Your task to perform on an android device: Toggle the flashlight Image 0: 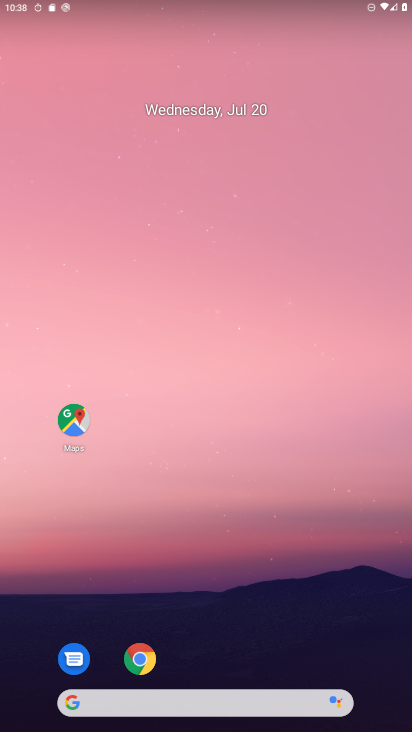
Step 0: drag from (262, 617) to (210, 108)
Your task to perform on an android device: Toggle the flashlight Image 1: 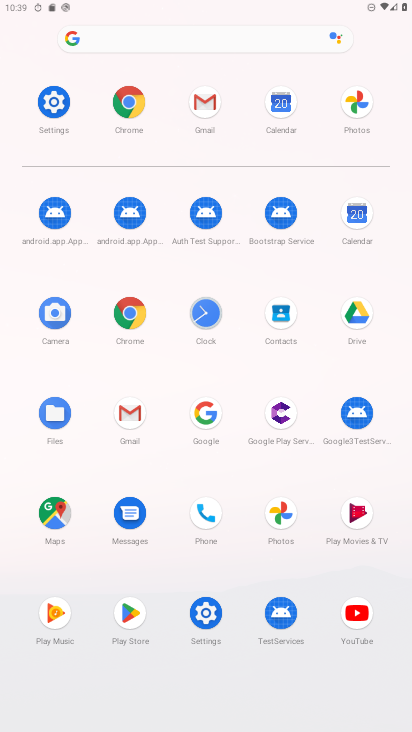
Step 1: click (53, 100)
Your task to perform on an android device: Toggle the flashlight Image 2: 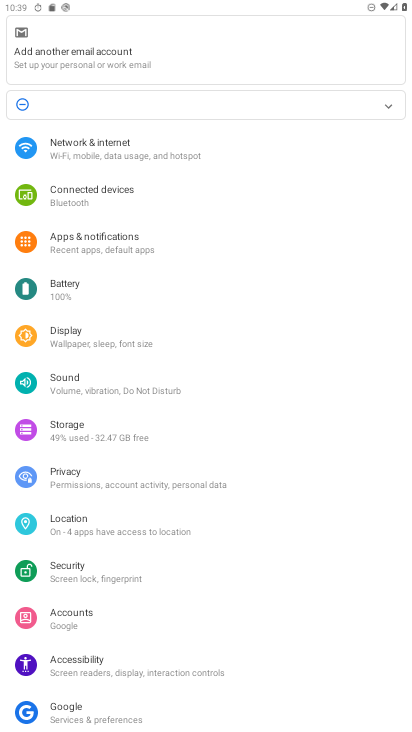
Step 2: click (63, 334)
Your task to perform on an android device: Toggle the flashlight Image 3: 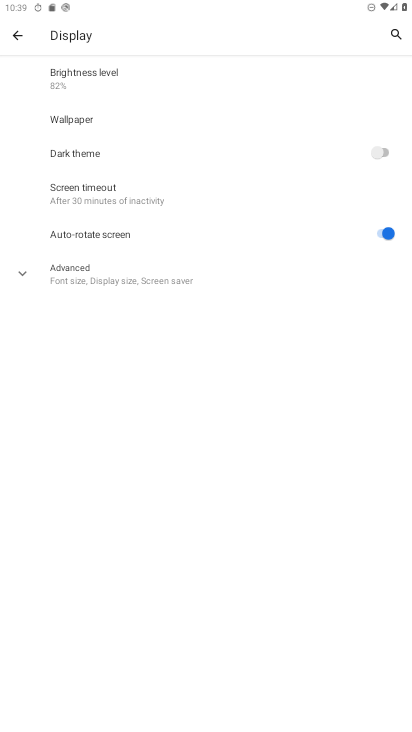
Step 3: task complete